Your task to perform on an android device: Go to Android settings Image 0: 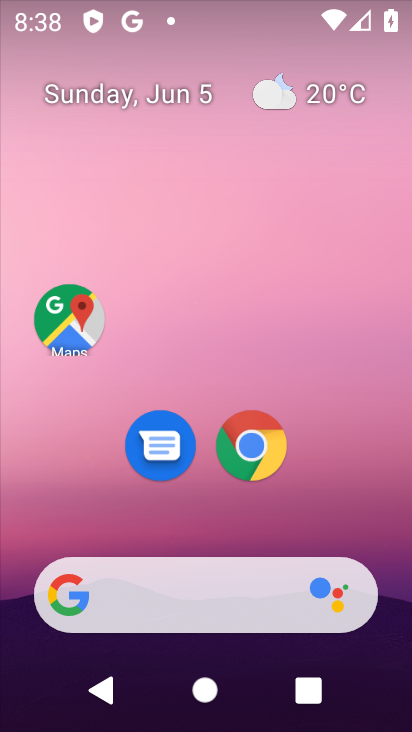
Step 0: drag from (290, 634) to (250, 8)
Your task to perform on an android device: Go to Android settings Image 1: 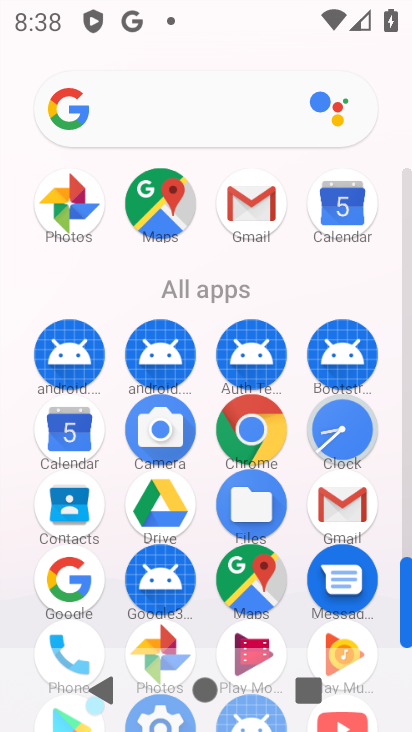
Step 1: drag from (283, 676) to (271, 157)
Your task to perform on an android device: Go to Android settings Image 2: 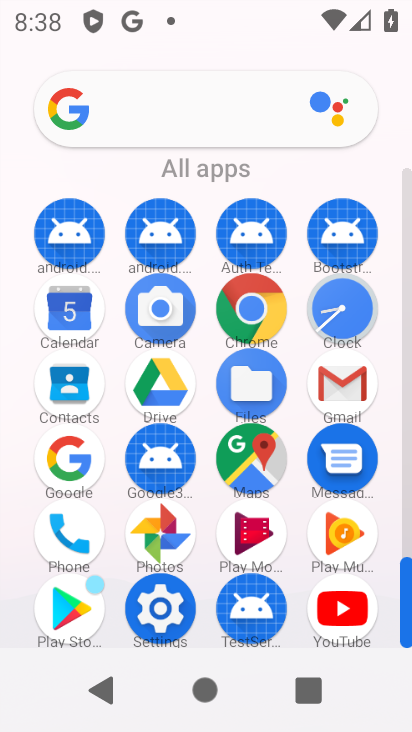
Step 2: click (164, 622)
Your task to perform on an android device: Go to Android settings Image 3: 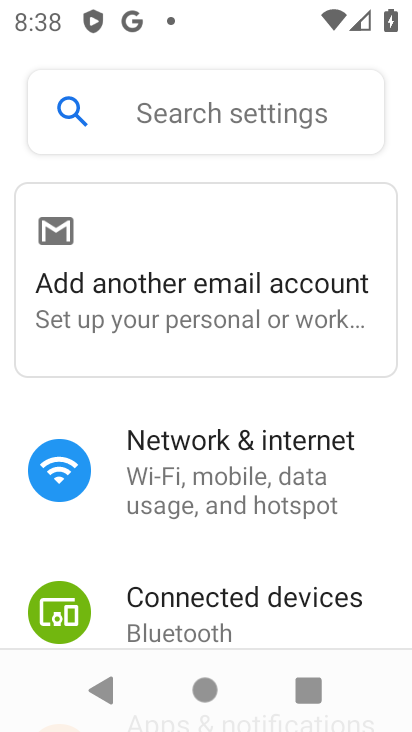
Step 3: drag from (305, 591) to (263, 34)
Your task to perform on an android device: Go to Android settings Image 4: 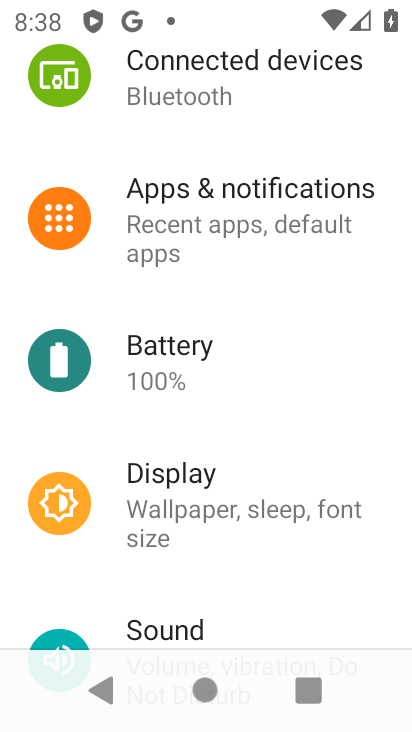
Step 4: drag from (266, 628) to (264, 183)
Your task to perform on an android device: Go to Android settings Image 5: 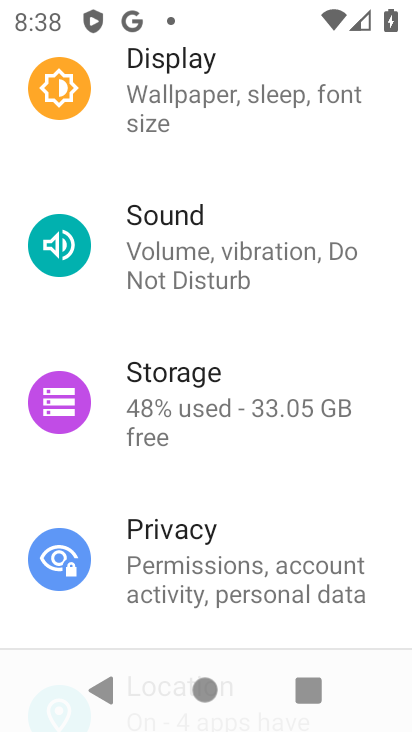
Step 5: drag from (309, 590) to (307, 194)
Your task to perform on an android device: Go to Android settings Image 6: 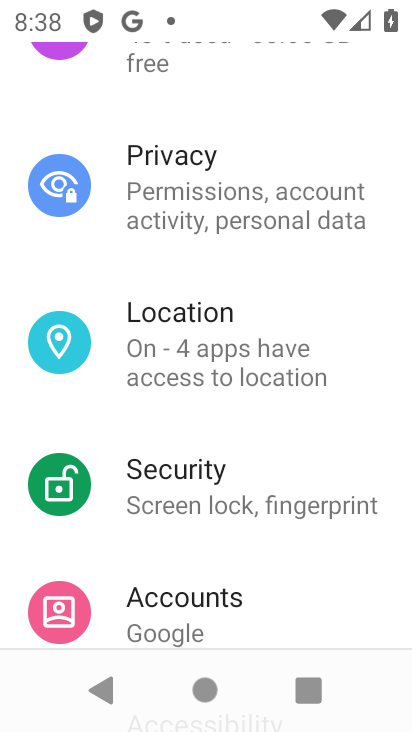
Step 6: drag from (281, 593) to (242, 115)
Your task to perform on an android device: Go to Android settings Image 7: 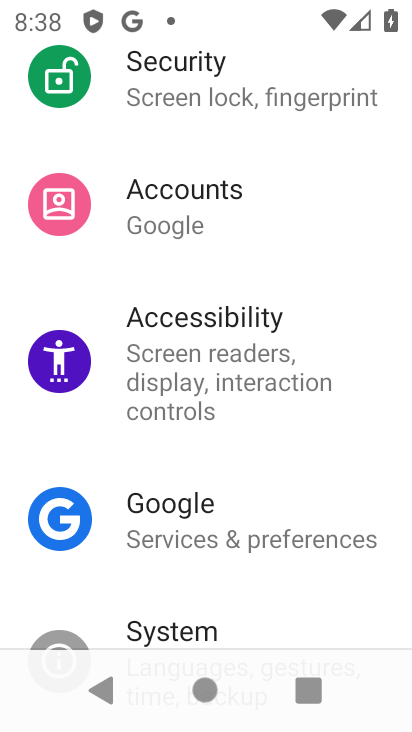
Step 7: drag from (278, 625) to (213, 151)
Your task to perform on an android device: Go to Android settings Image 8: 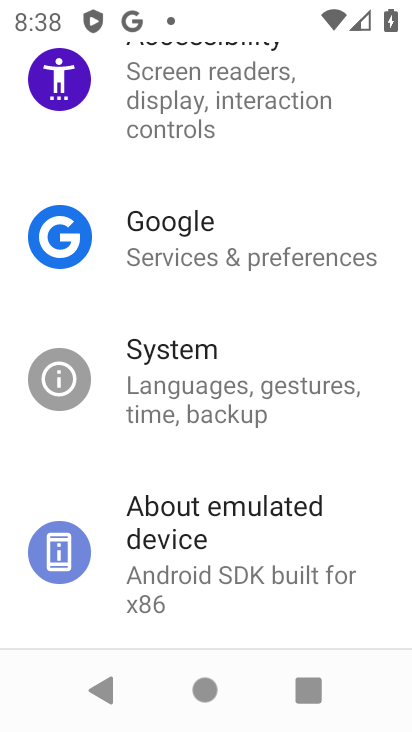
Step 8: click (263, 600)
Your task to perform on an android device: Go to Android settings Image 9: 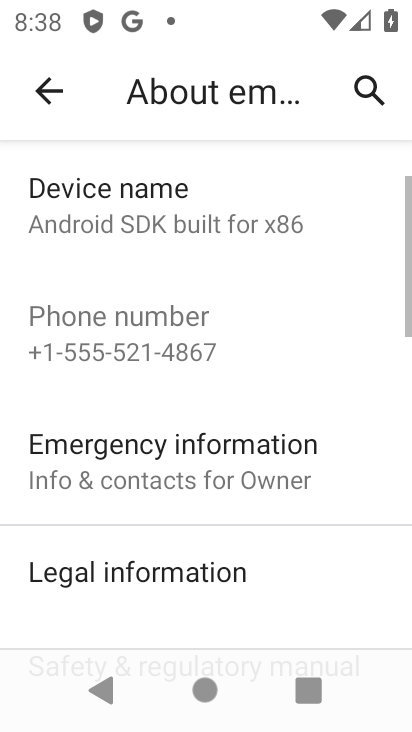
Step 9: drag from (267, 627) to (296, 142)
Your task to perform on an android device: Go to Android settings Image 10: 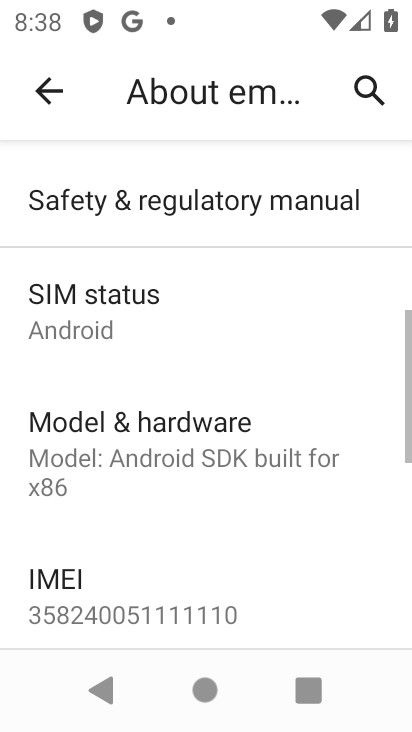
Step 10: drag from (223, 581) to (212, 282)
Your task to perform on an android device: Go to Android settings Image 11: 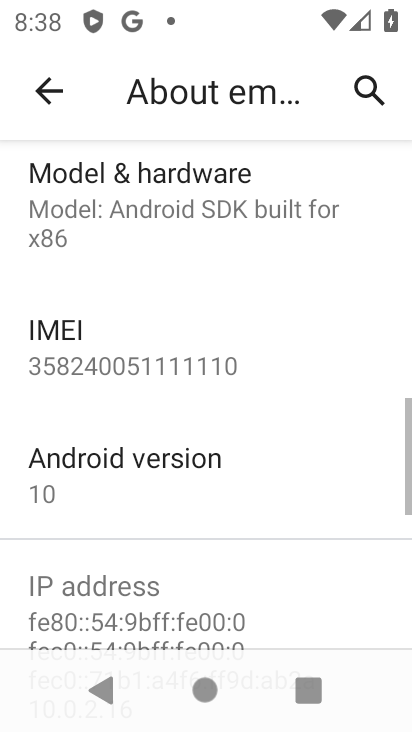
Step 11: click (263, 474)
Your task to perform on an android device: Go to Android settings Image 12: 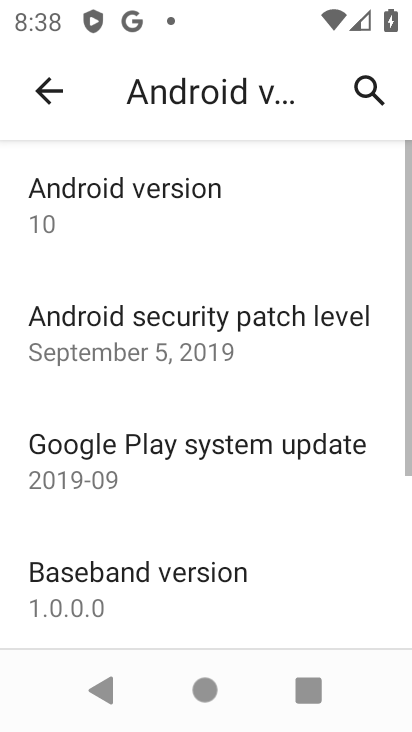
Step 12: task complete